Your task to perform on an android device: add a contact Image 0: 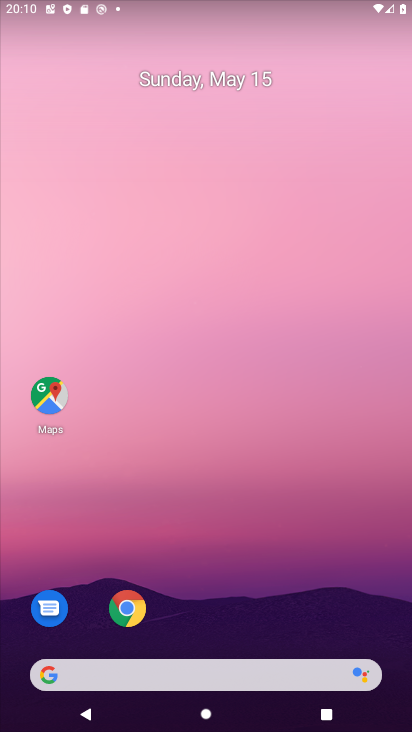
Step 0: drag from (236, 606) to (279, 44)
Your task to perform on an android device: add a contact Image 1: 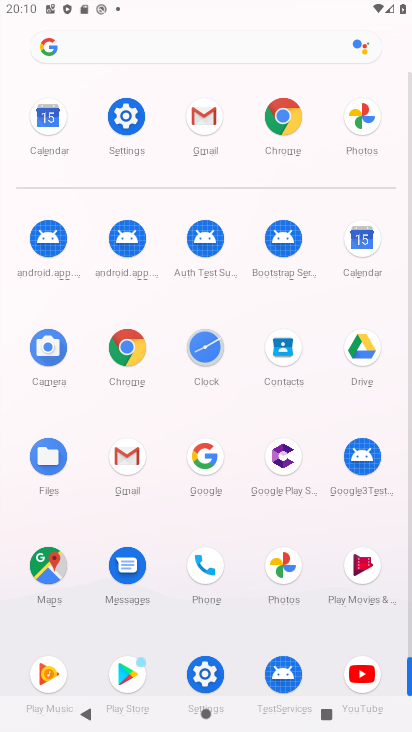
Step 1: click (285, 342)
Your task to perform on an android device: add a contact Image 2: 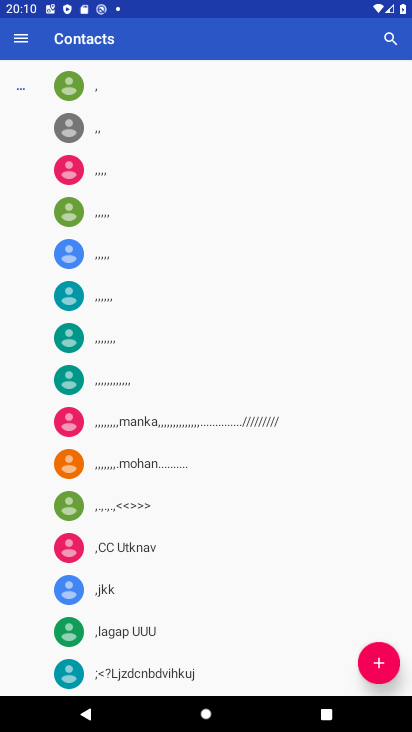
Step 2: click (383, 660)
Your task to perform on an android device: add a contact Image 3: 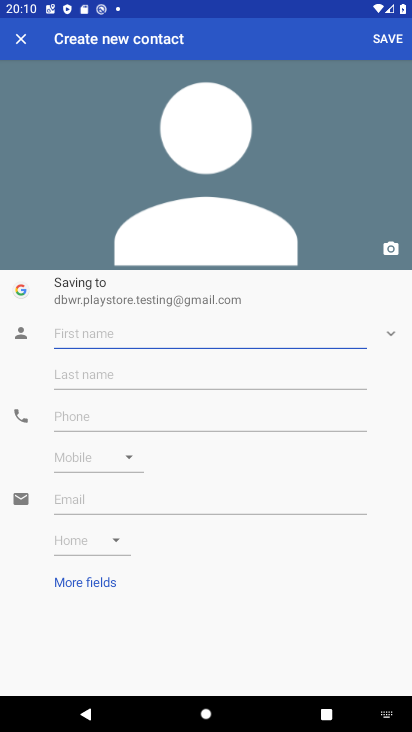
Step 3: type "fgrehh"
Your task to perform on an android device: add a contact Image 4: 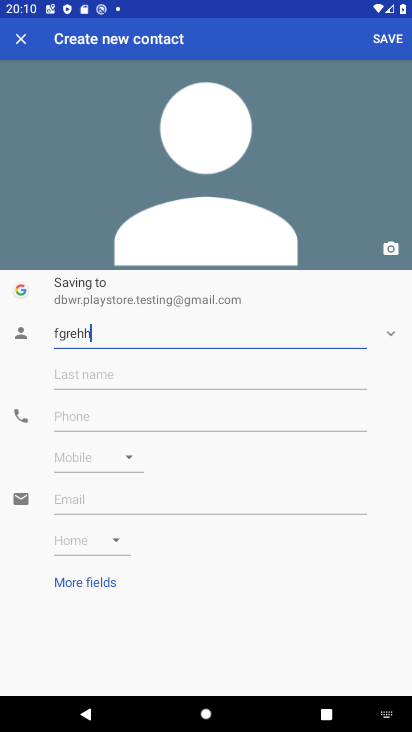
Step 4: click (387, 38)
Your task to perform on an android device: add a contact Image 5: 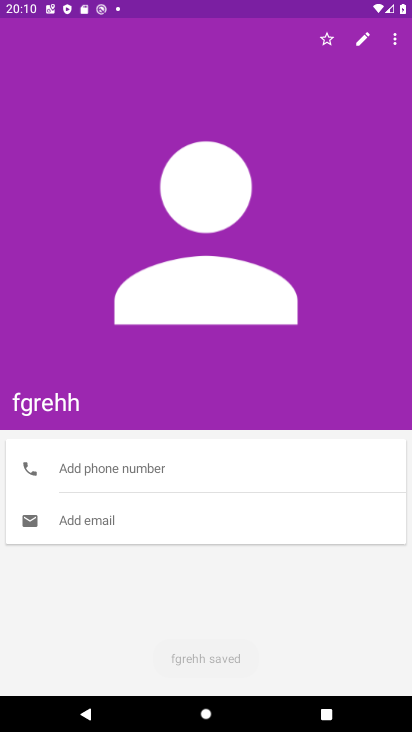
Step 5: task complete